Your task to perform on an android device: turn off notifications settings in the gmail app Image 0: 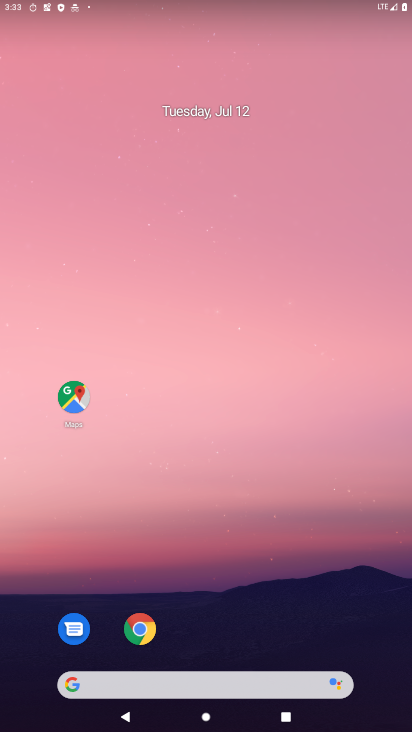
Step 0: drag from (283, 591) to (298, 7)
Your task to perform on an android device: turn off notifications settings in the gmail app Image 1: 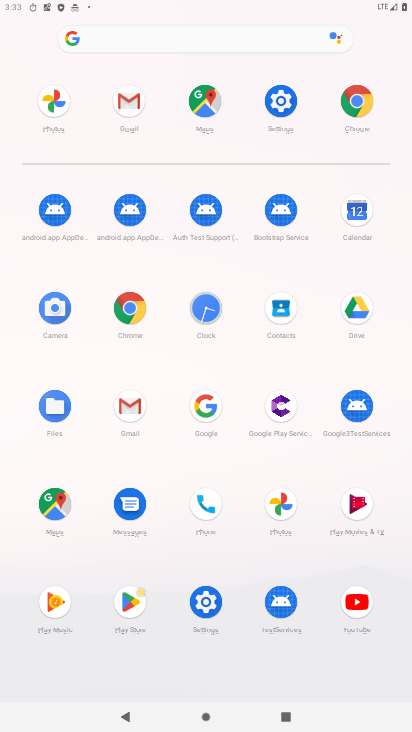
Step 1: click (127, 413)
Your task to perform on an android device: turn off notifications settings in the gmail app Image 2: 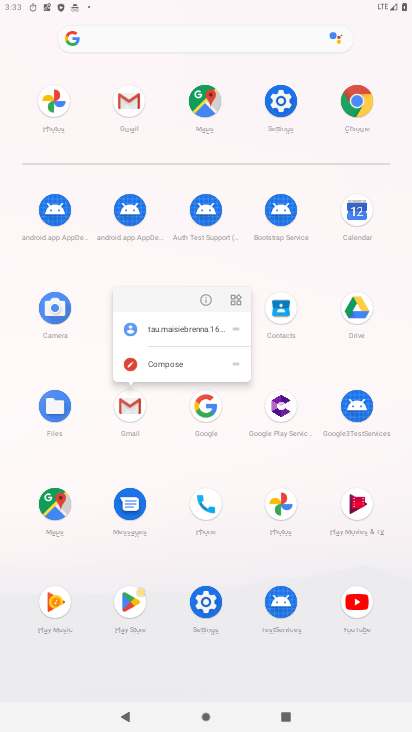
Step 2: click (210, 298)
Your task to perform on an android device: turn off notifications settings in the gmail app Image 3: 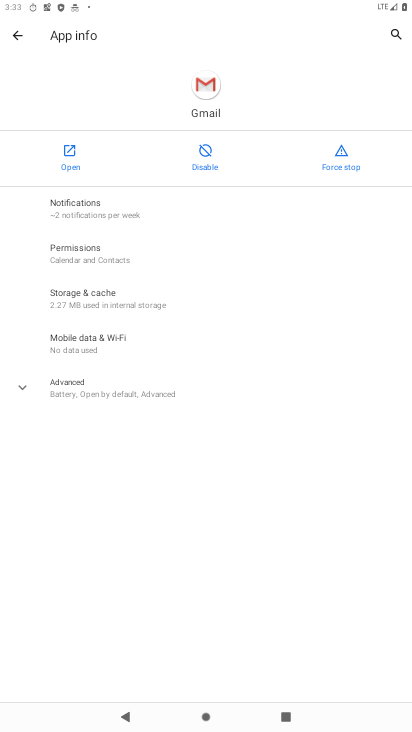
Step 3: click (72, 209)
Your task to perform on an android device: turn off notifications settings in the gmail app Image 4: 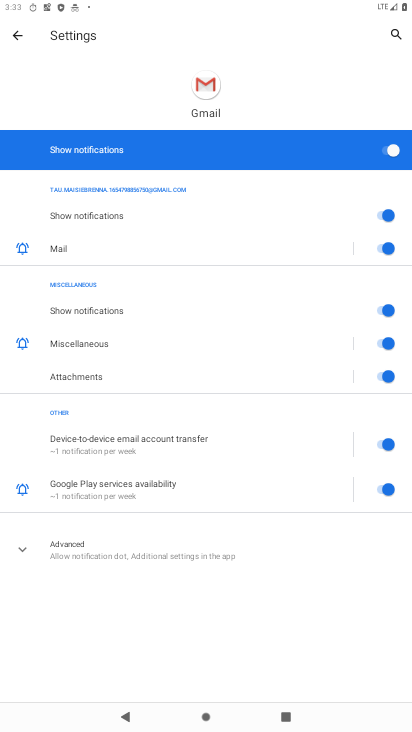
Step 4: click (392, 150)
Your task to perform on an android device: turn off notifications settings in the gmail app Image 5: 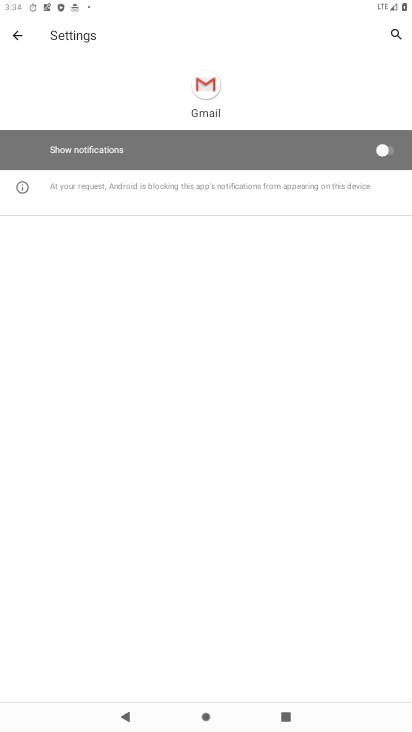
Step 5: task complete